Your task to perform on an android device: move a message to another label in the gmail app Image 0: 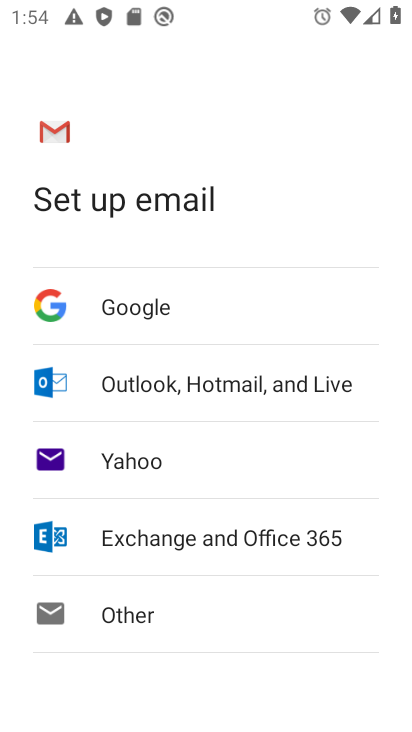
Step 0: press home button
Your task to perform on an android device: move a message to another label in the gmail app Image 1: 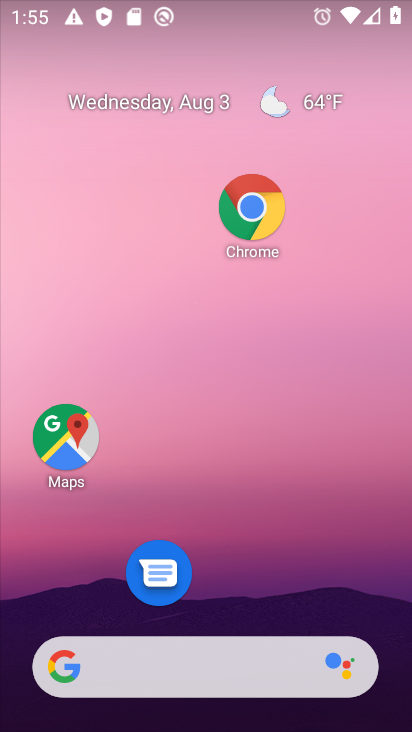
Step 1: drag from (212, 606) to (280, 105)
Your task to perform on an android device: move a message to another label in the gmail app Image 2: 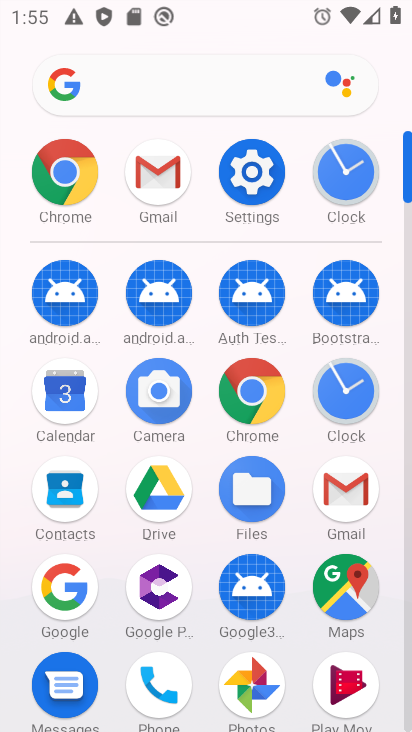
Step 2: click (344, 509)
Your task to perform on an android device: move a message to another label in the gmail app Image 3: 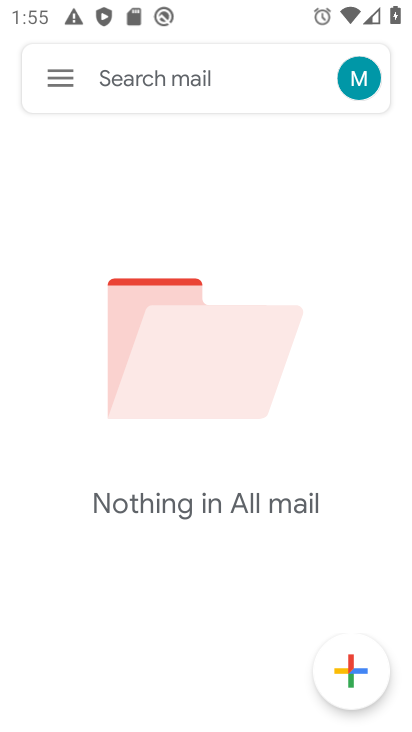
Step 3: click (64, 76)
Your task to perform on an android device: move a message to another label in the gmail app Image 4: 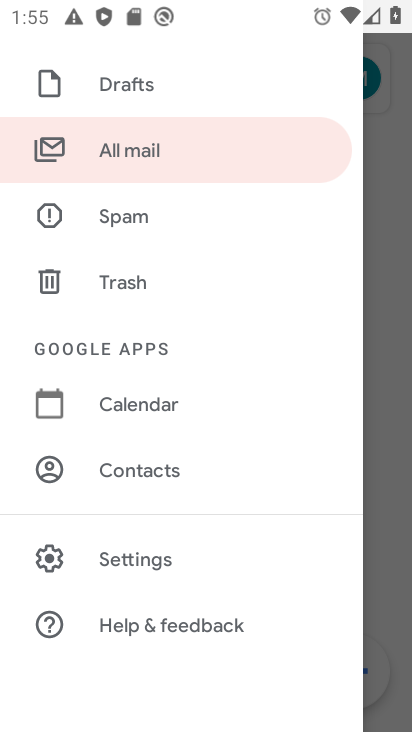
Step 4: click (126, 167)
Your task to perform on an android device: move a message to another label in the gmail app Image 5: 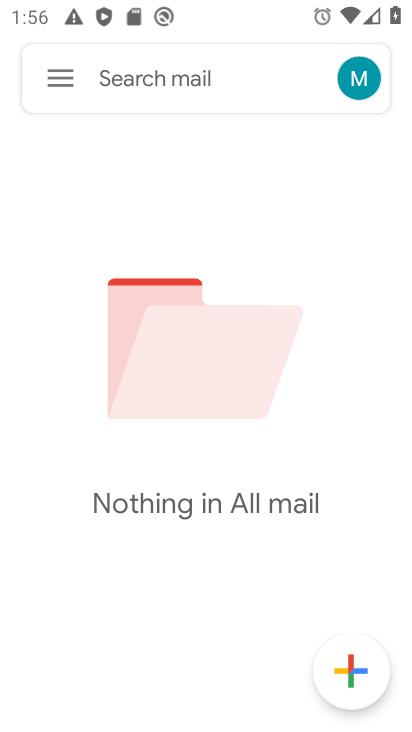
Step 5: task complete